Your task to perform on an android device: Open Maps and search for coffee Image 0: 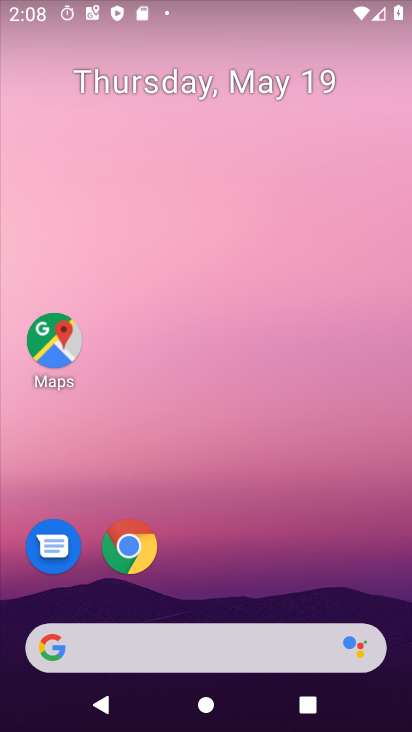
Step 0: click (54, 348)
Your task to perform on an android device: Open Maps and search for coffee Image 1: 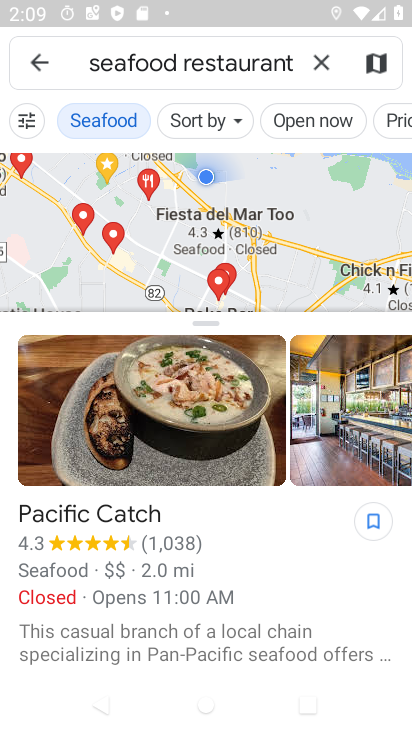
Step 1: click (328, 57)
Your task to perform on an android device: Open Maps and search for coffee Image 2: 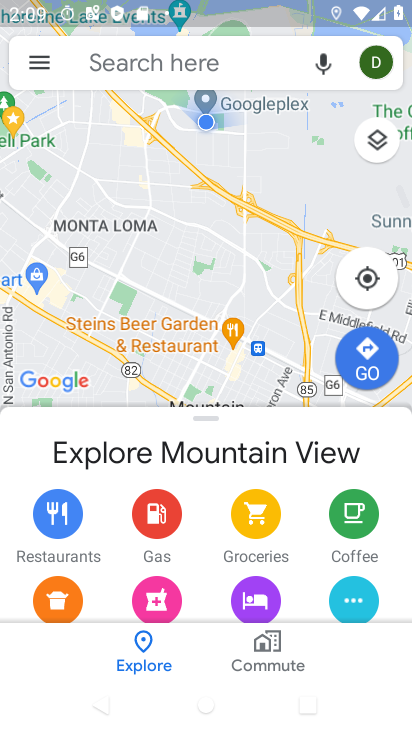
Step 2: click (203, 62)
Your task to perform on an android device: Open Maps and search for coffee Image 3: 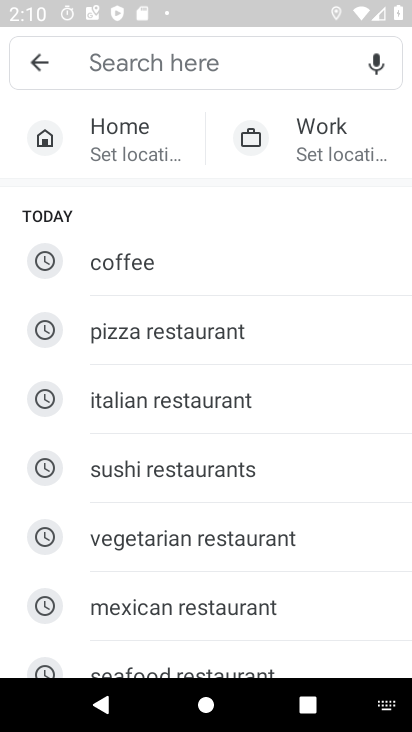
Step 3: type "coffee"
Your task to perform on an android device: Open Maps and search for coffee Image 4: 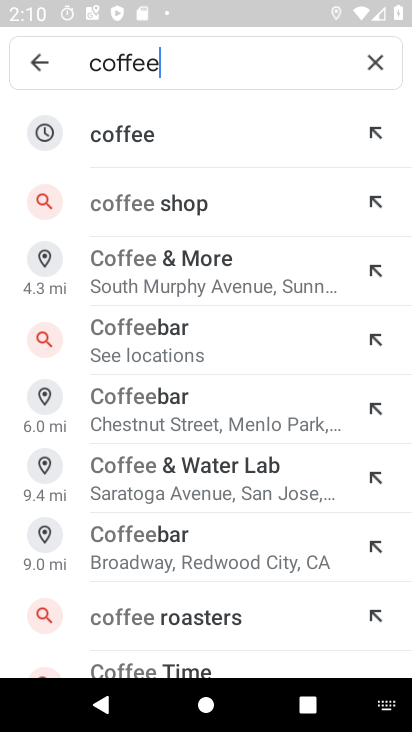
Step 4: click (215, 203)
Your task to perform on an android device: Open Maps and search for coffee Image 5: 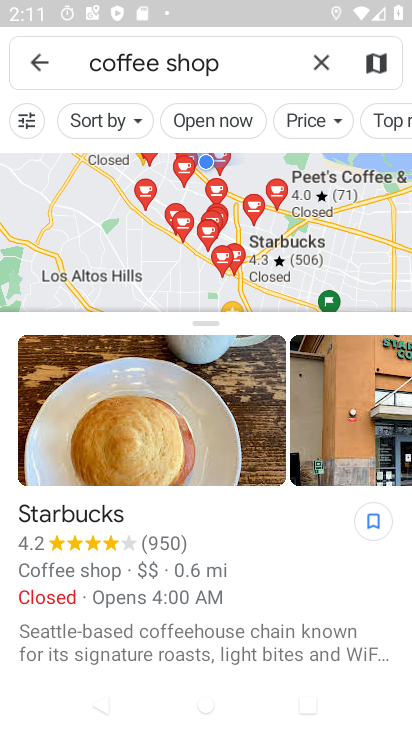
Step 5: task complete